Your task to perform on an android device: star an email in the gmail app Image 0: 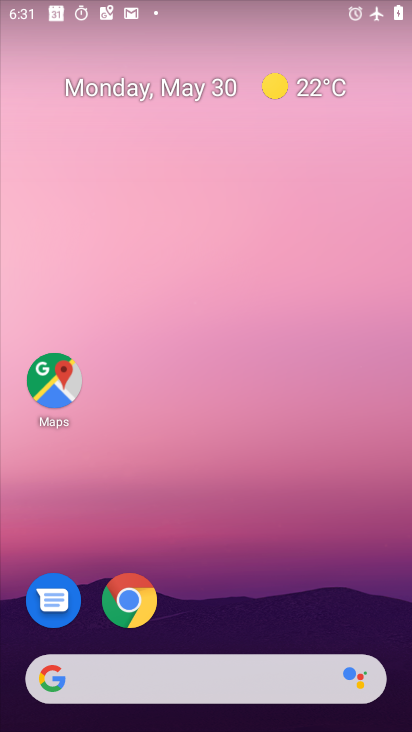
Step 0: press home button
Your task to perform on an android device: star an email in the gmail app Image 1: 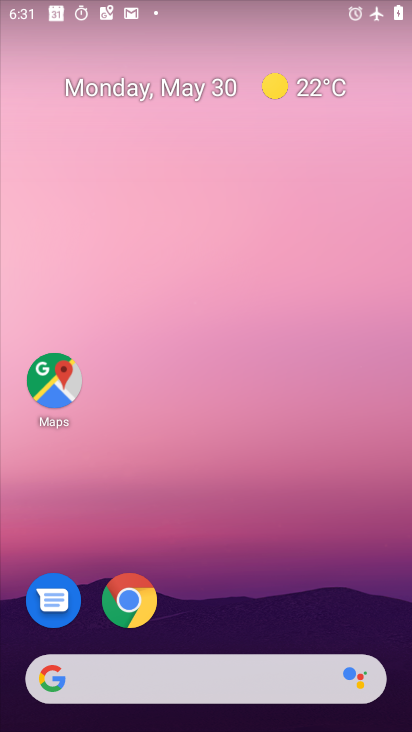
Step 1: drag from (274, 584) to (307, 167)
Your task to perform on an android device: star an email in the gmail app Image 2: 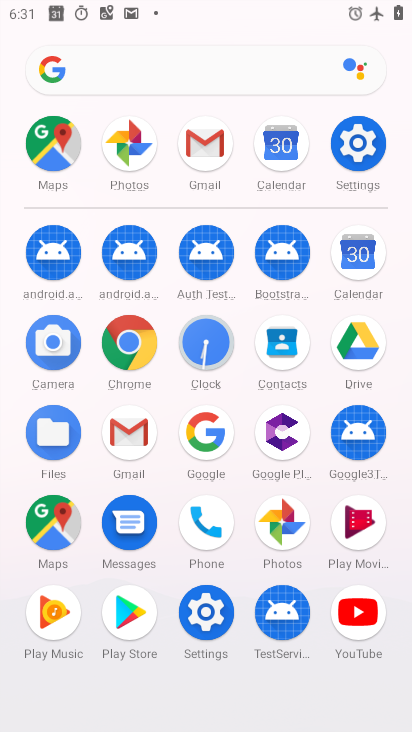
Step 2: click (199, 161)
Your task to perform on an android device: star an email in the gmail app Image 3: 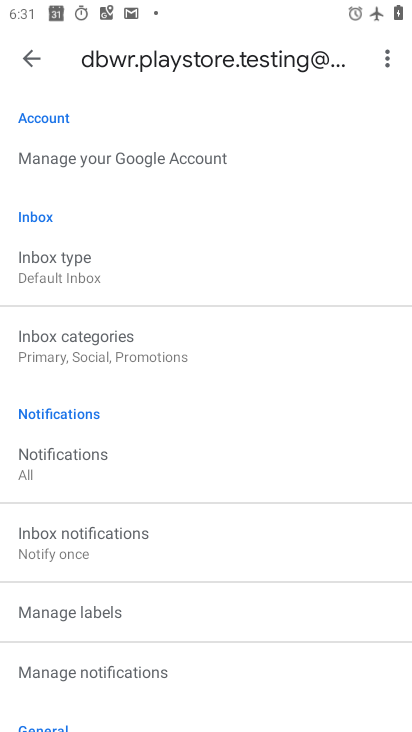
Step 3: click (35, 66)
Your task to perform on an android device: star an email in the gmail app Image 4: 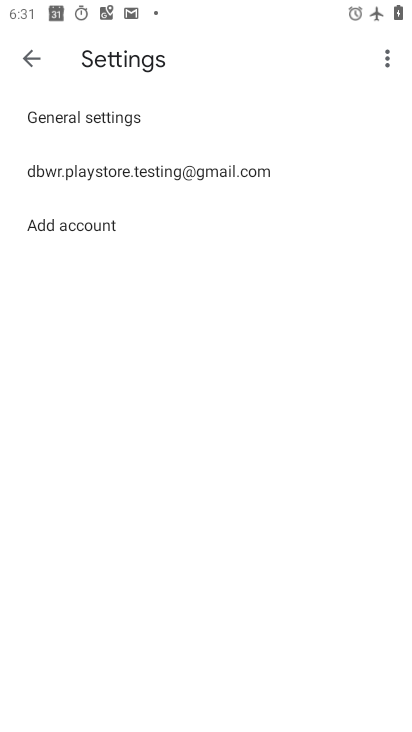
Step 4: click (32, 67)
Your task to perform on an android device: star an email in the gmail app Image 5: 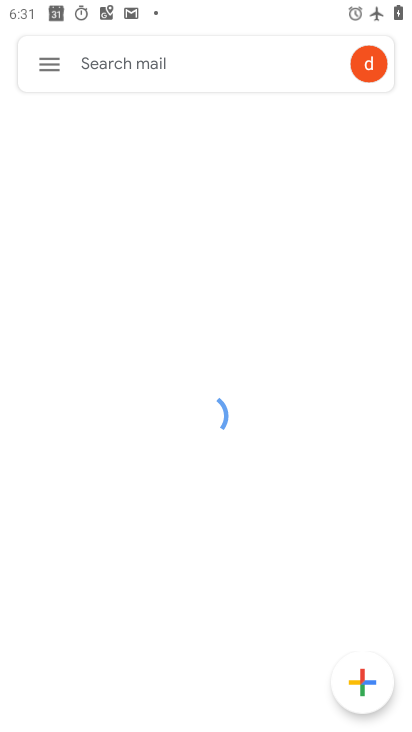
Step 5: click (46, 52)
Your task to perform on an android device: star an email in the gmail app Image 6: 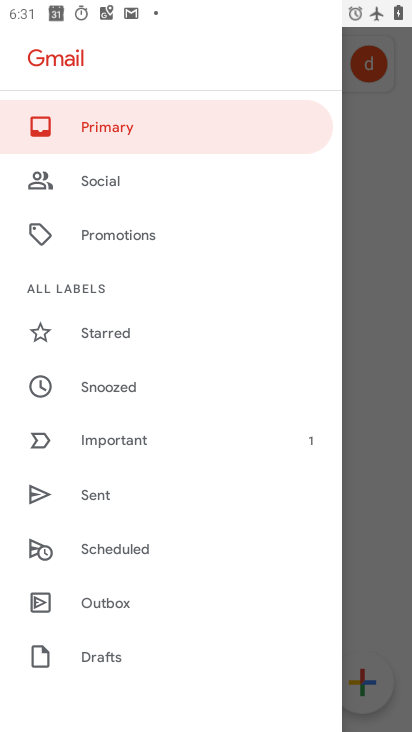
Step 6: drag from (237, 632) to (235, 303)
Your task to perform on an android device: star an email in the gmail app Image 7: 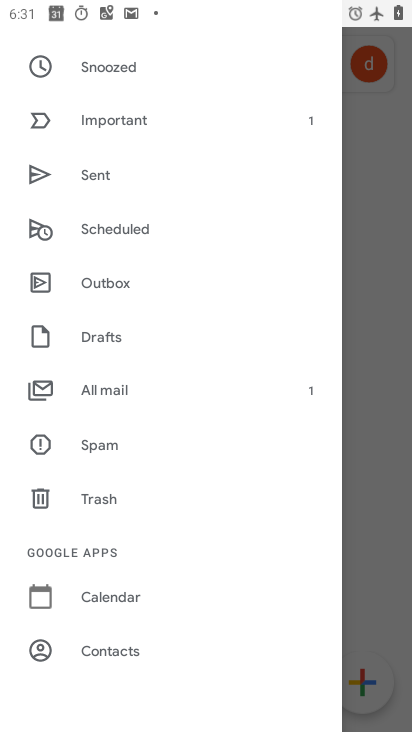
Step 7: click (98, 393)
Your task to perform on an android device: star an email in the gmail app Image 8: 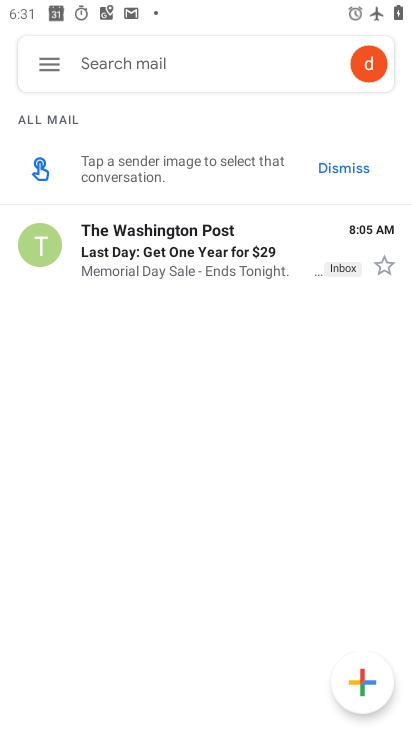
Step 8: click (384, 272)
Your task to perform on an android device: star an email in the gmail app Image 9: 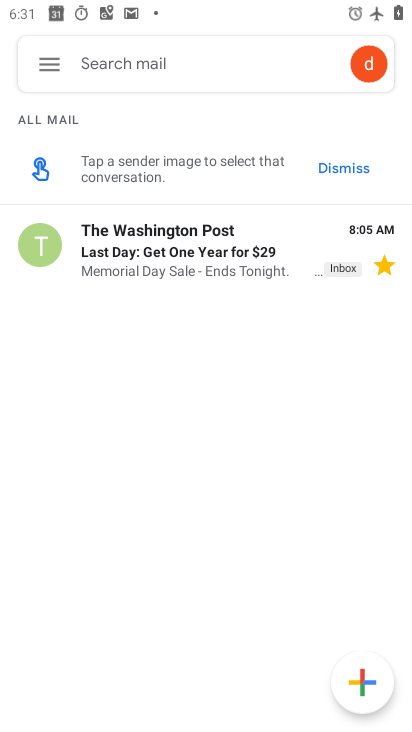
Step 9: task complete